Your task to perform on an android device: open a new tab in the chrome app Image 0: 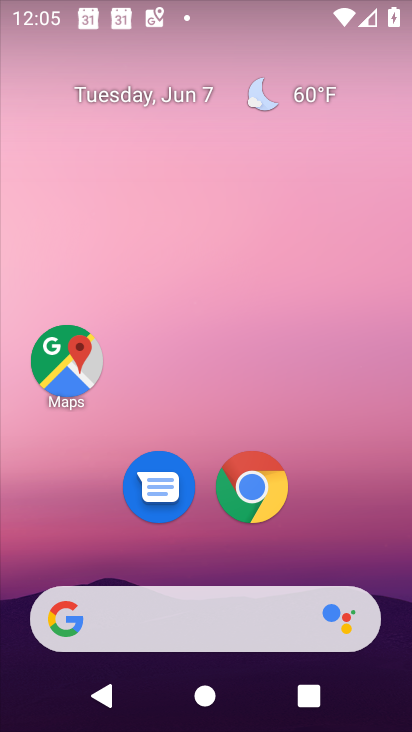
Step 0: click (266, 476)
Your task to perform on an android device: open a new tab in the chrome app Image 1: 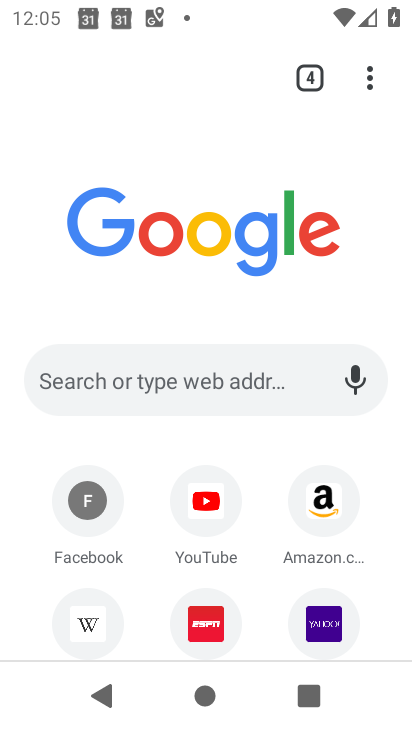
Step 1: click (371, 90)
Your task to perform on an android device: open a new tab in the chrome app Image 2: 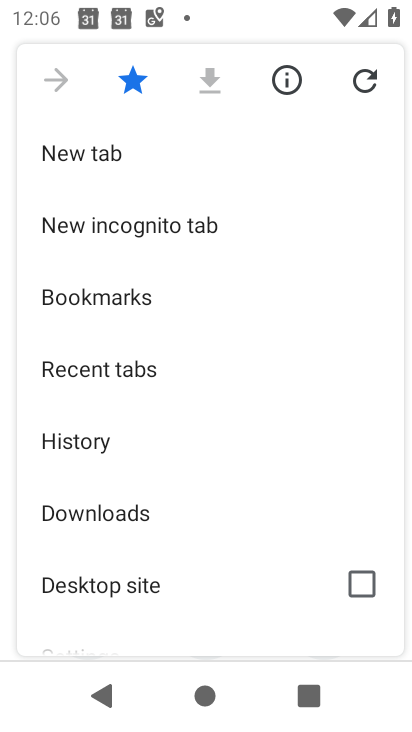
Step 2: click (219, 146)
Your task to perform on an android device: open a new tab in the chrome app Image 3: 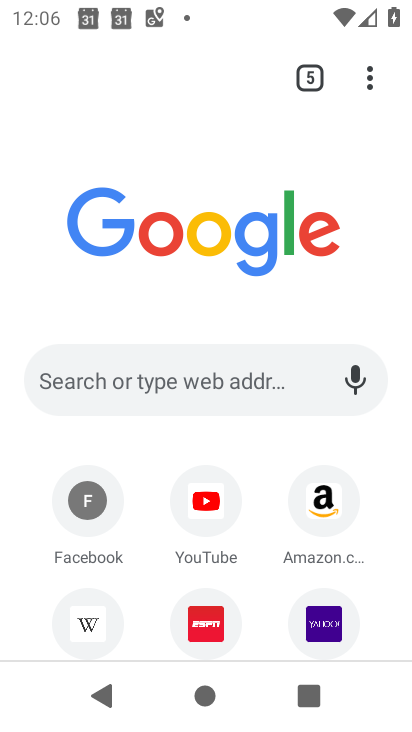
Step 3: task complete